Your task to perform on an android device: turn on notifications settings in the gmail app Image 0: 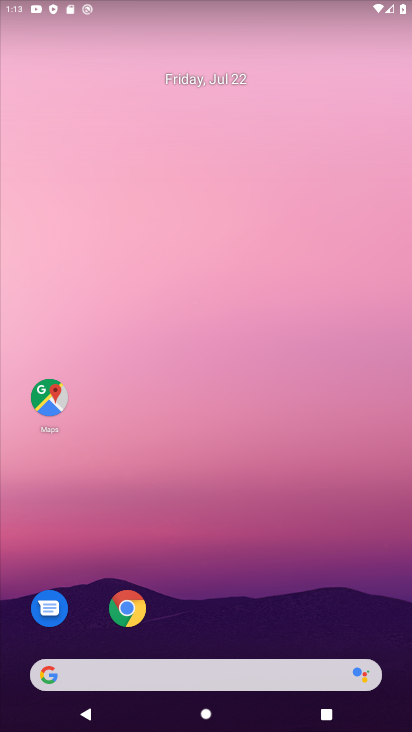
Step 0: drag from (389, 700) to (280, 158)
Your task to perform on an android device: turn on notifications settings in the gmail app Image 1: 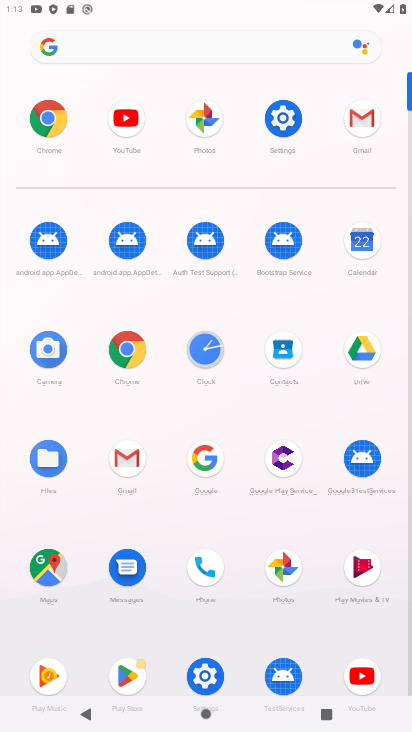
Step 1: click (107, 447)
Your task to perform on an android device: turn on notifications settings in the gmail app Image 2: 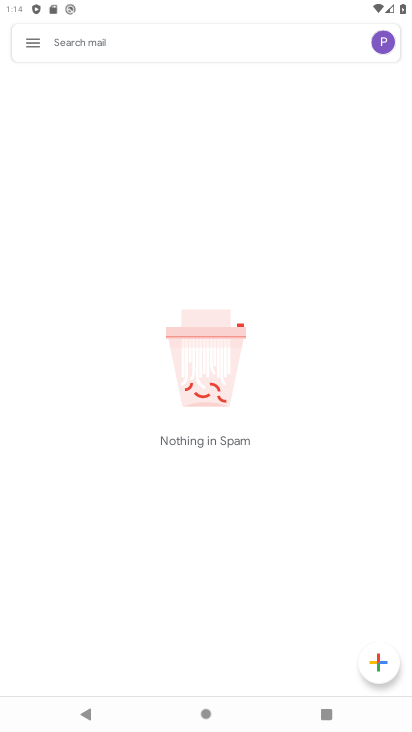
Step 2: click (23, 38)
Your task to perform on an android device: turn on notifications settings in the gmail app Image 3: 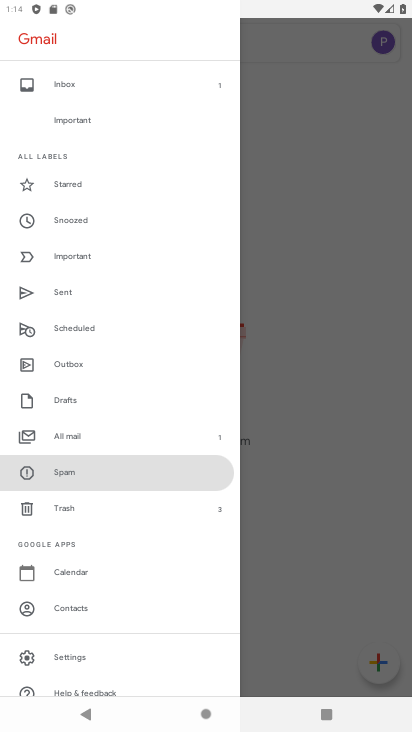
Step 3: click (59, 653)
Your task to perform on an android device: turn on notifications settings in the gmail app Image 4: 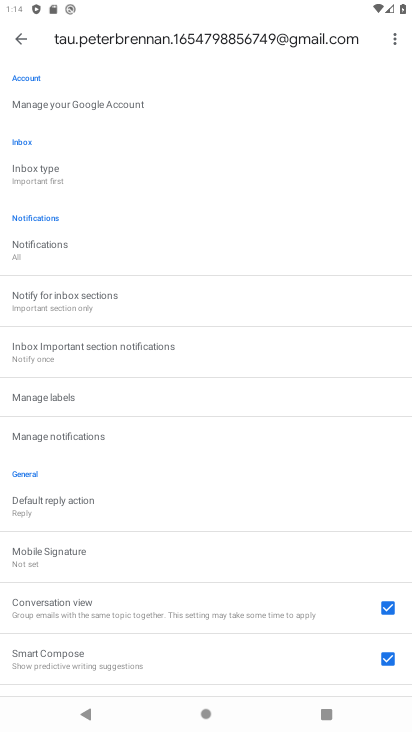
Step 4: click (43, 245)
Your task to perform on an android device: turn on notifications settings in the gmail app Image 5: 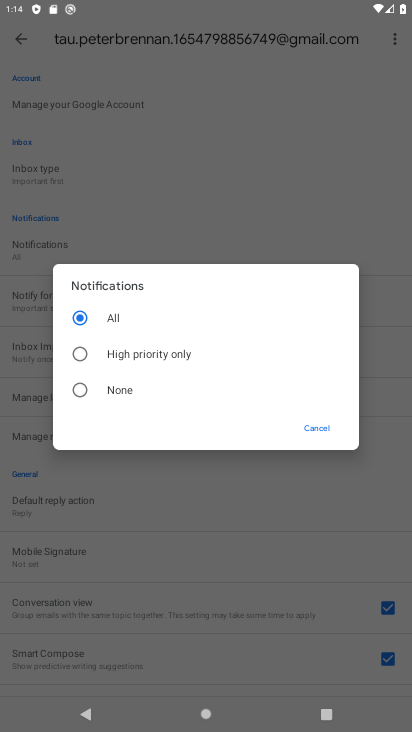
Step 5: task complete